Your task to perform on an android device: Do I have any events this weekend? Image 0: 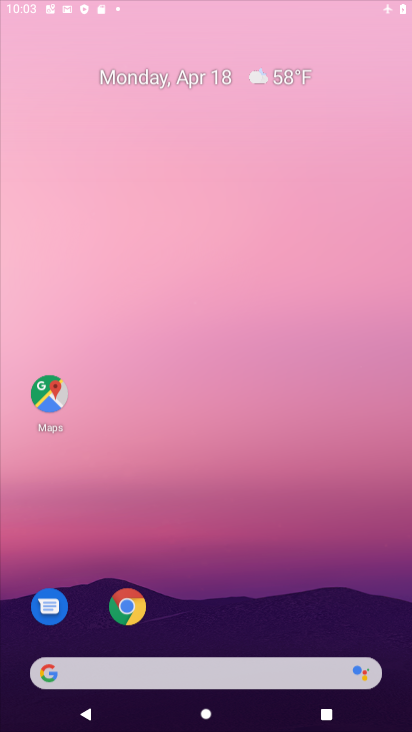
Step 0: click (255, 165)
Your task to perform on an android device: Do I have any events this weekend? Image 1: 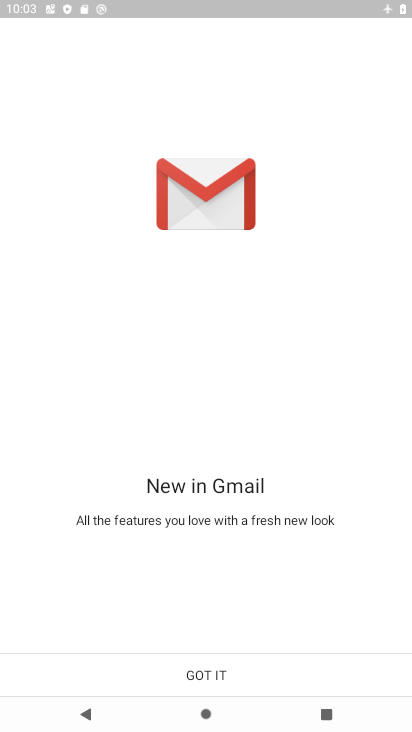
Step 1: press home button
Your task to perform on an android device: Do I have any events this weekend? Image 2: 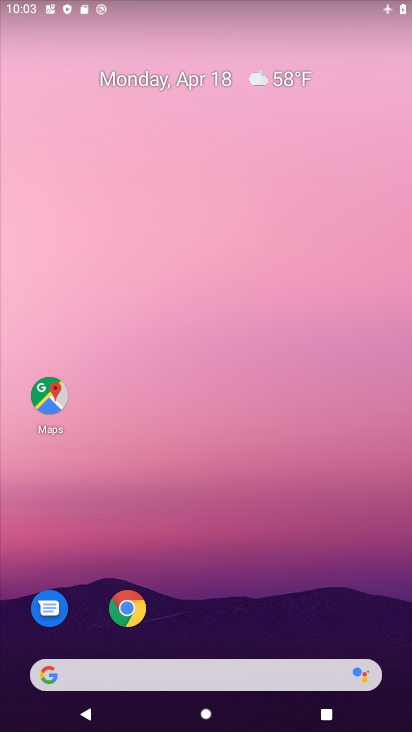
Step 2: drag from (302, 620) to (203, 130)
Your task to perform on an android device: Do I have any events this weekend? Image 3: 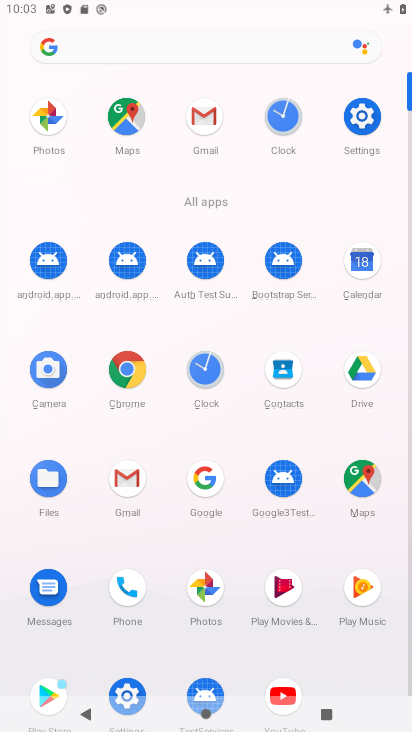
Step 3: click (364, 255)
Your task to perform on an android device: Do I have any events this weekend? Image 4: 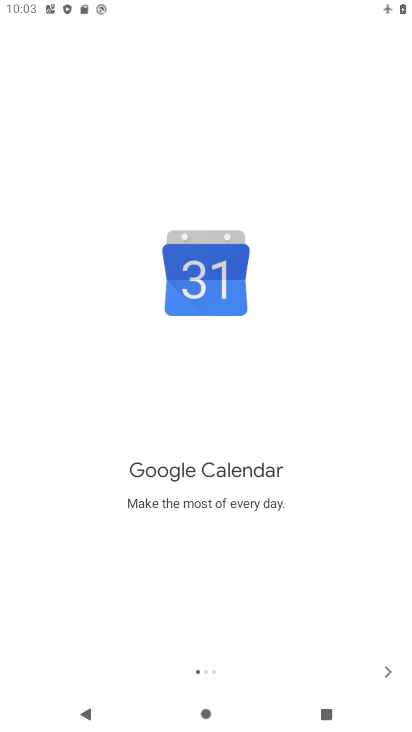
Step 4: click (382, 669)
Your task to perform on an android device: Do I have any events this weekend? Image 5: 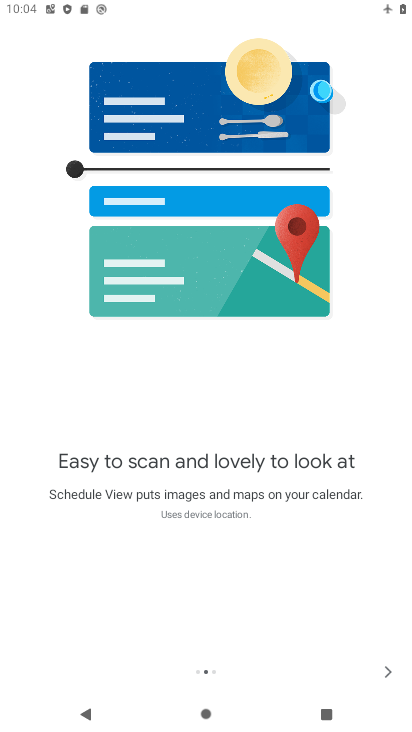
Step 5: click (382, 669)
Your task to perform on an android device: Do I have any events this weekend? Image 6: 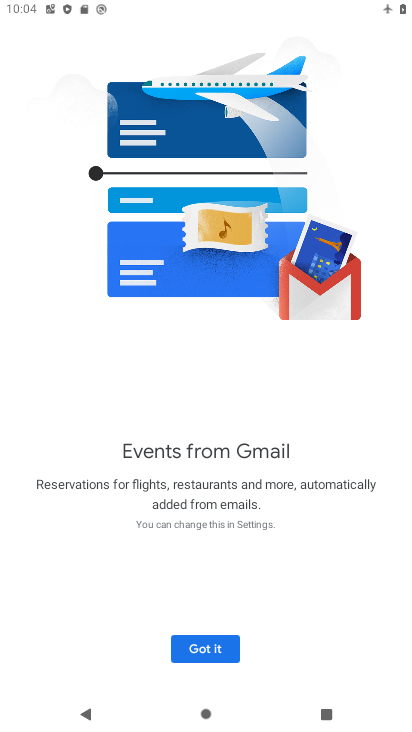
Step 6: click (382, 669)
Your task to perform on an android device: Do I have any events this weekend? Image 7: 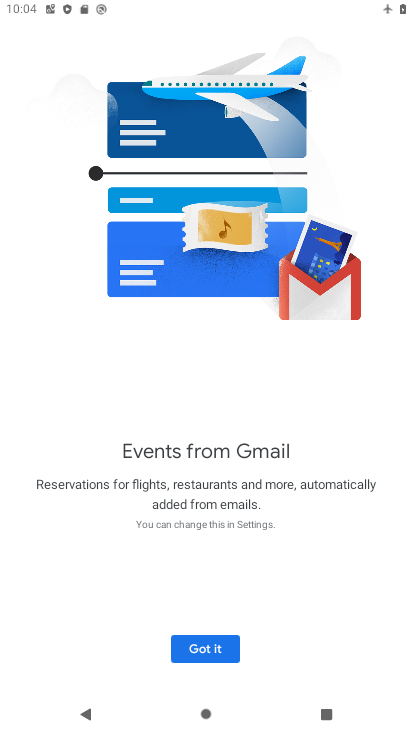
Step 7: click (204, 656)
Your task to perform on an android device: Do I have any events this weekend? Image 8: 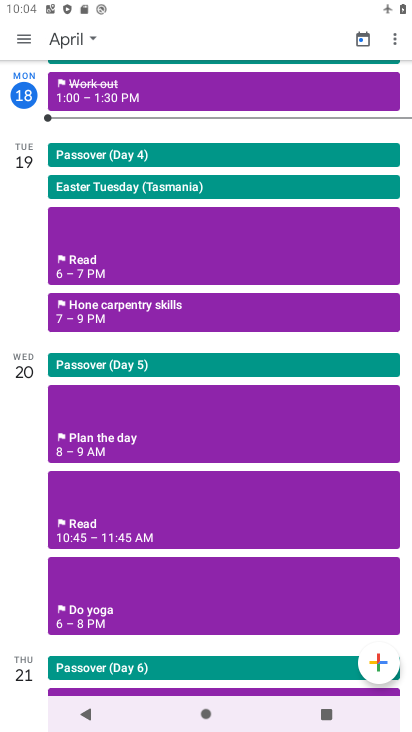
Step 8: click (80, 48)
Your task to perform on an android device: Do I have any events this weekend? Image 9: 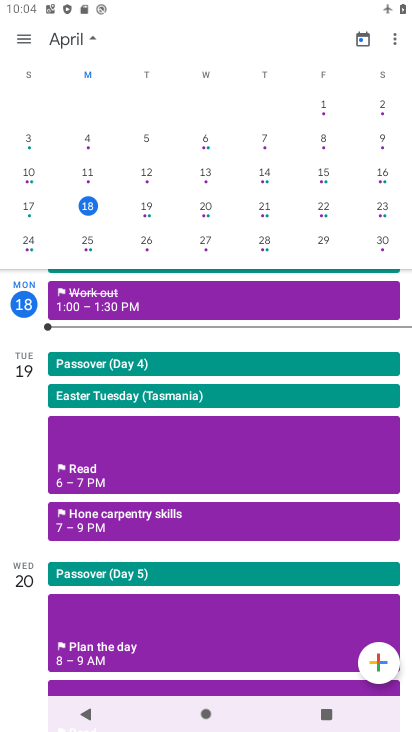
Step 9: click (319, 216)
Your task to perform on an android device: Do I have any events this weekend? Image 10: 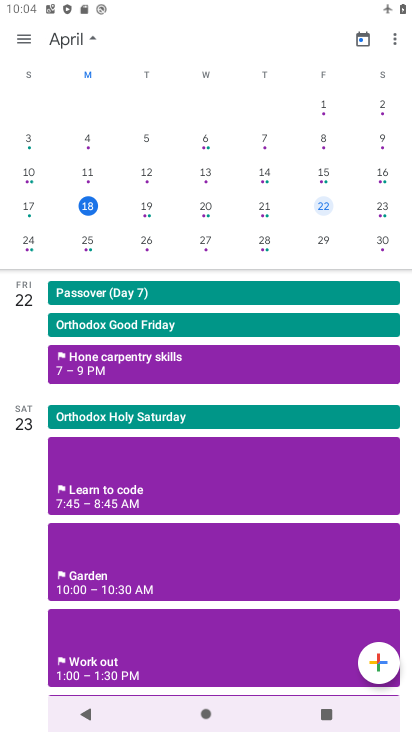
Step 10: click (91, 40)
Your task to perform on an android device: Do I have any events this weekend? Image 11: 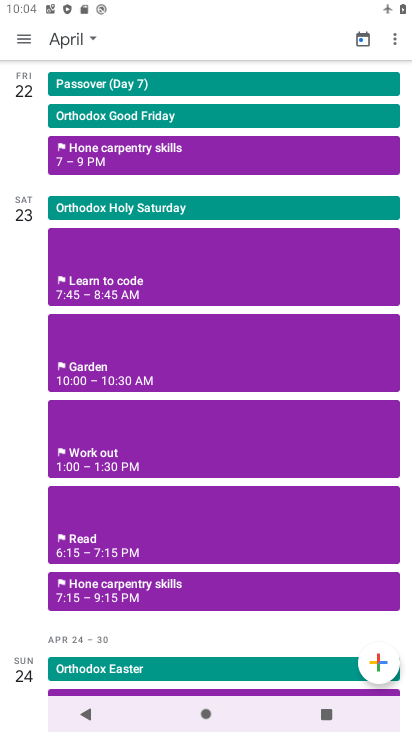
Step 11: task complete